Your task to perform on an android device: What's on my calendar tomorrow? Image 0: 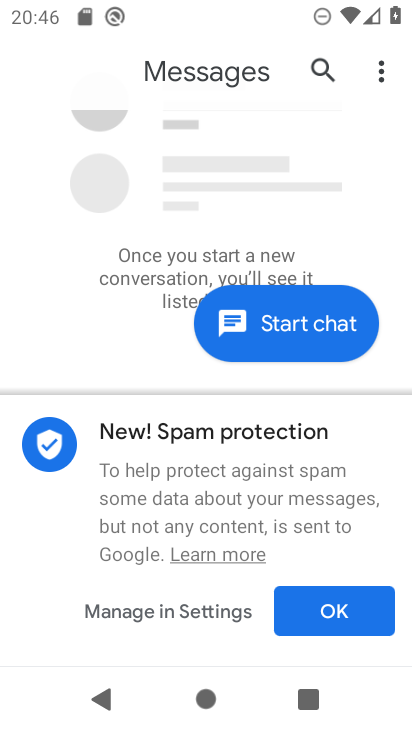
Step 0: press home button
Your task to perform on an android device: What's on my calendar tomorrow? Image 1: 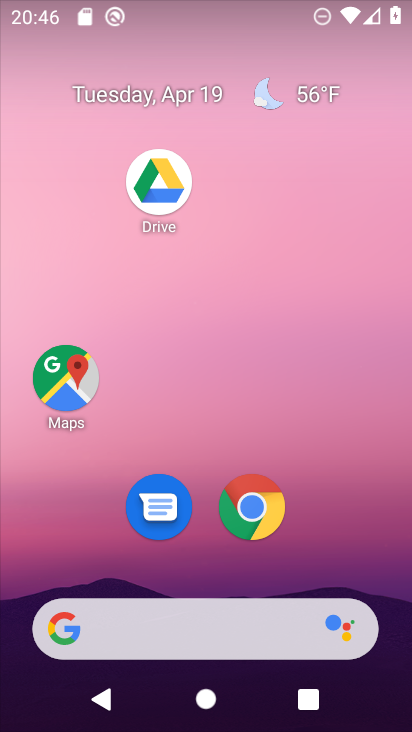
Step 1: drag from (328, 504) to (330, 216)
Your task to perform on an android device: What's on my calendar tomorrow? Image 2: 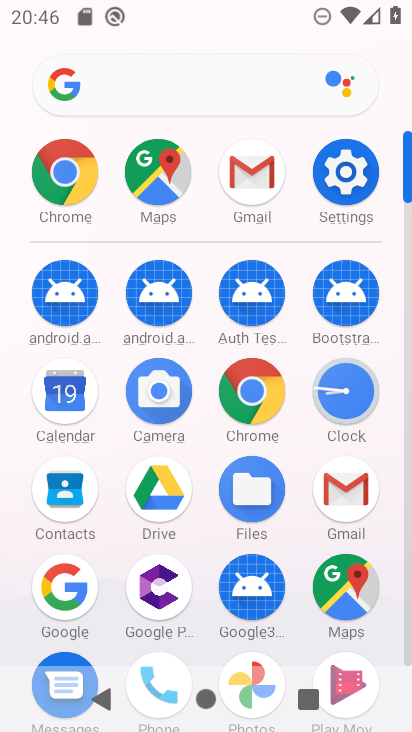
Step 2: click (74, 394)
Your task to perform on an android device: What's on my calendar tomorrow? Image 3: 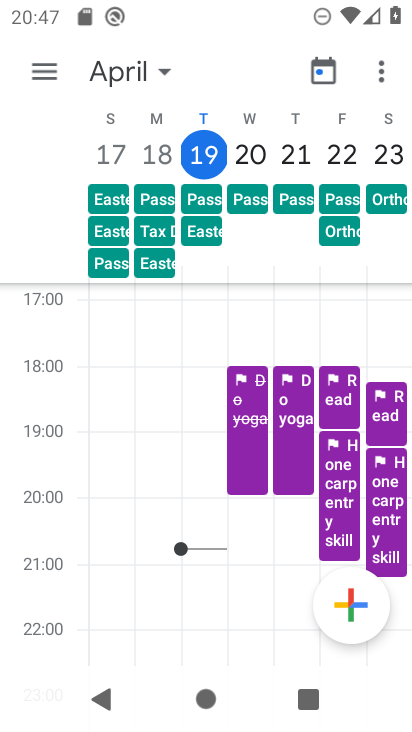
Step 3: drag from (239, 300) to (284, 697)
Your task to perform on an android device: What's on my calendar tomorrow? Image 4: 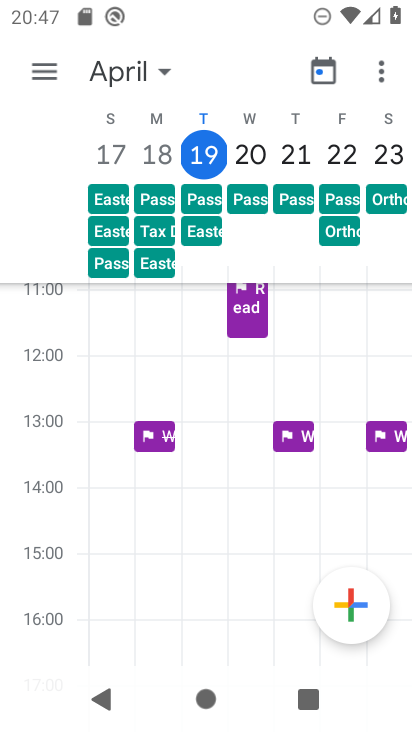
Step 4: drag from (290, 335) to (332, 730)
Your task to perform on an android device: What's on my calendar tomorrow? Image 5: 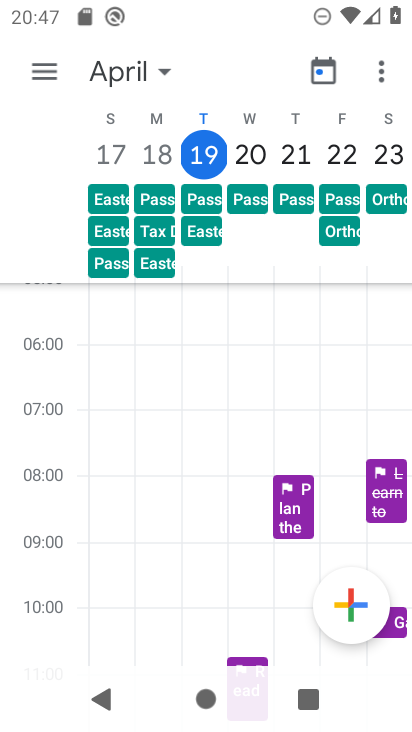
Step 5: drag from (268, 316) to (301, 637)
Your task to perform on an android device: What's on my calendar tomorrow? Image 6: 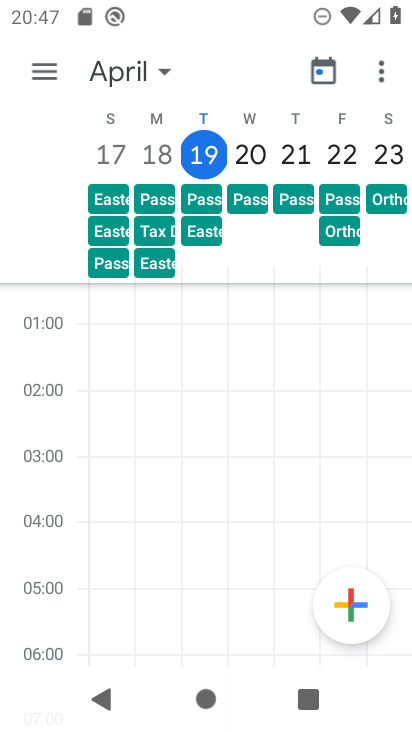
Step 6: drag from (286, 557) to (281, 233)
Your task to perform on an android device: What's on my calendar tomorrow? Image 7: 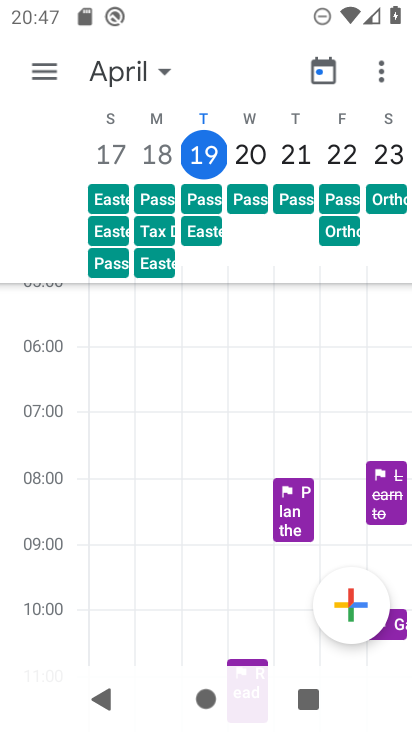
Step 7: drag from (248, 470) to (247, 261)
Your task to perform on an android device: What's on my calendar tomorrow? Image 8: 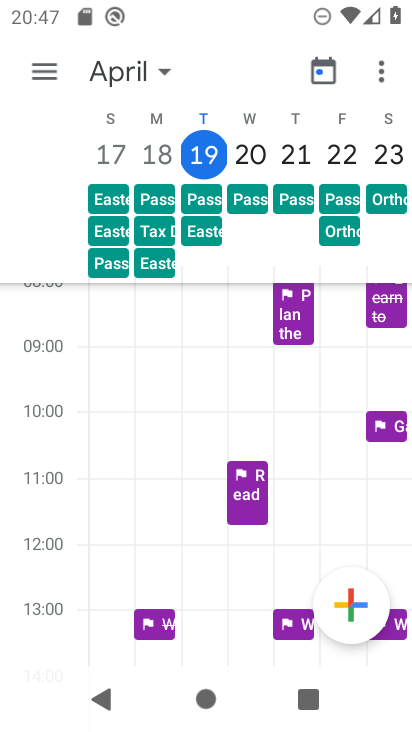
Step 8: click (250, 490)
Your task to perform on an android device: What's on my calendar tomorrow? Image 9: 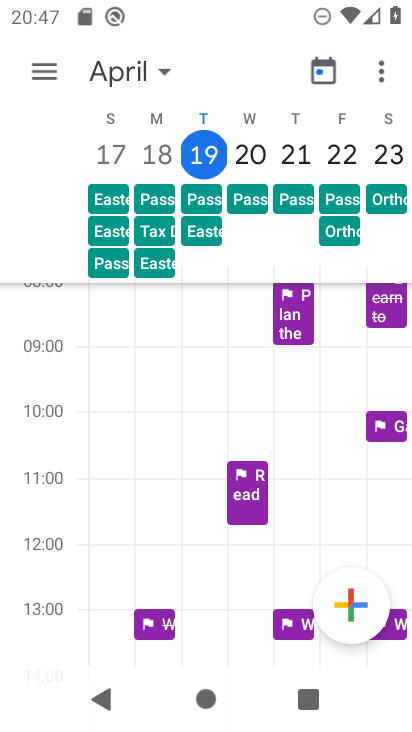
Step 9: click (245, 468)
Your task to perform on an android device: What's on my calendar tomorrow? Image 10: 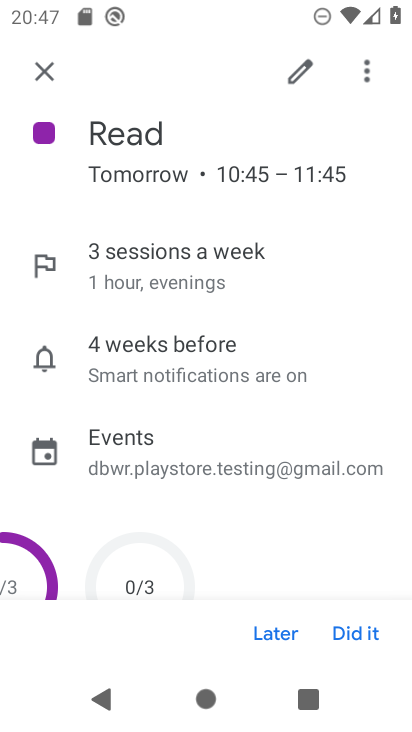
Step 10: task complete